Your task to perform on an android device: turn off location history Image 0: 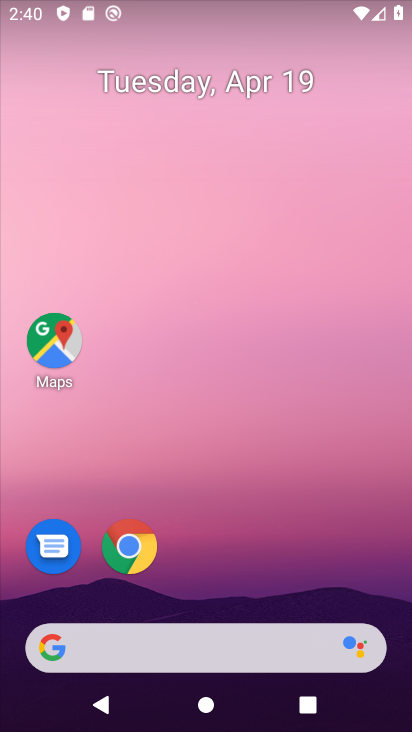
Step 0: drag from (217, 635) to (208, 18)
Your task to perform on an android device: turn off location history Image 1: 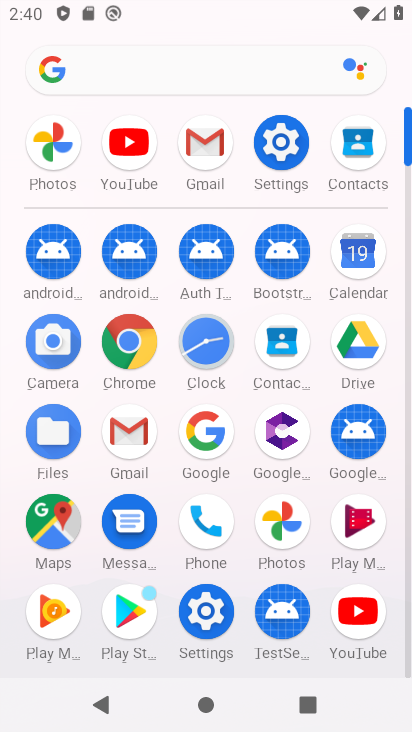
Step 1: click (208, 618)
Your task to perform on an android device: turn off location history Image 2: 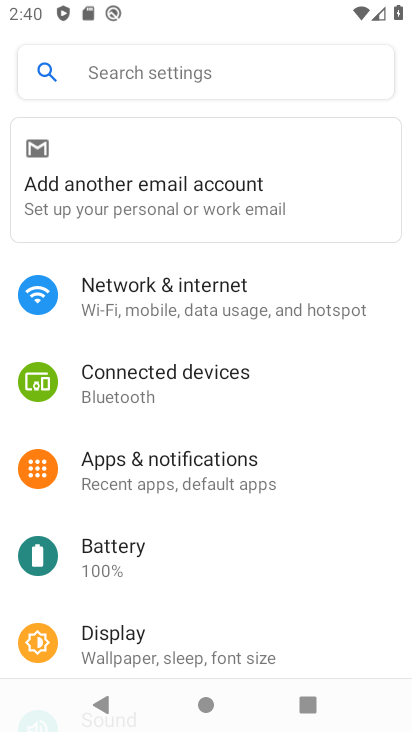
Step 2: drag from (182, 542) to (167, 2)
Your task to perform on an android device: turn off location history Image 3: 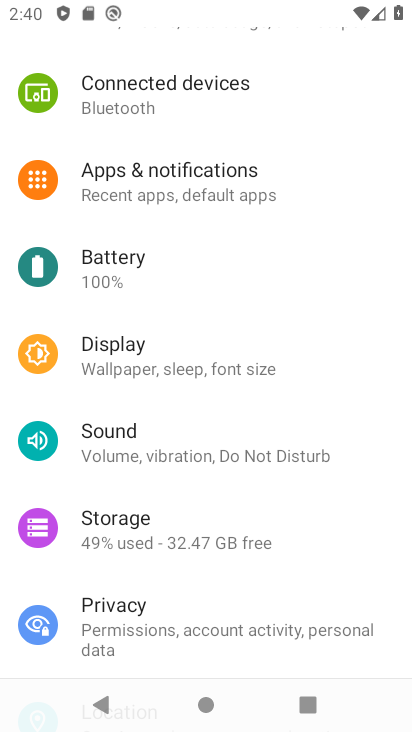
Step 3: drag from (175, 548) to (200, 139)
Your task to perform on an android device: turn off location history Image 4: 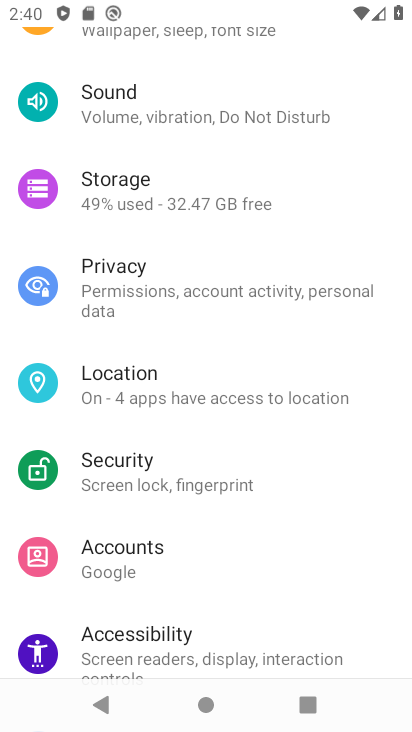
Step 4: click (148, 405)
Your task to perform on an android device: turn off location history Image 5: 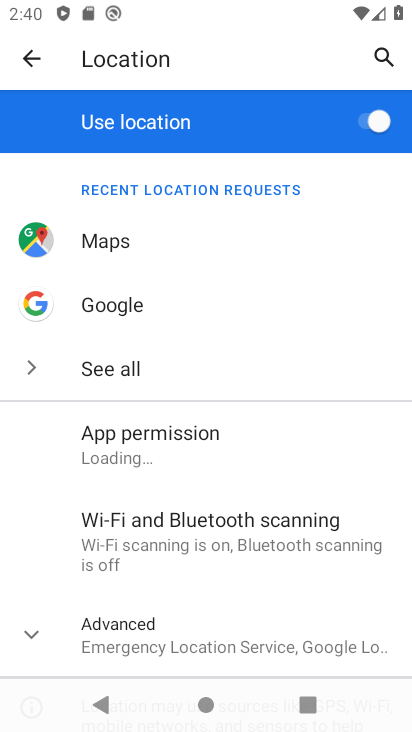
Step 5: drag from (201, 646) to (246, 128)
Your task to perform on an android device: turn off location history Image 6: 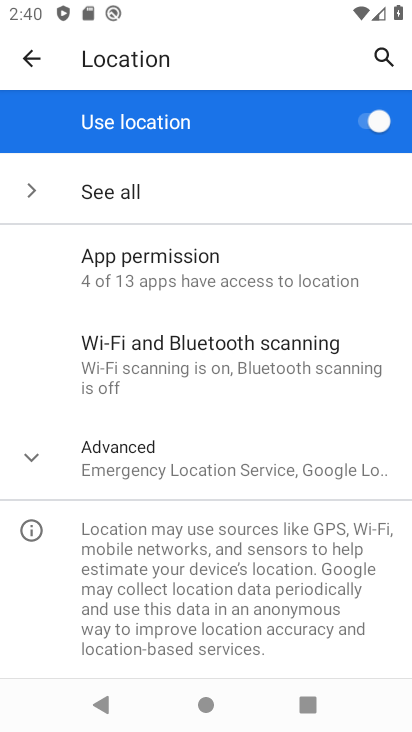
Step 6: click (165, 450)
Your task to perform on an android device: turn off location history Image 7: 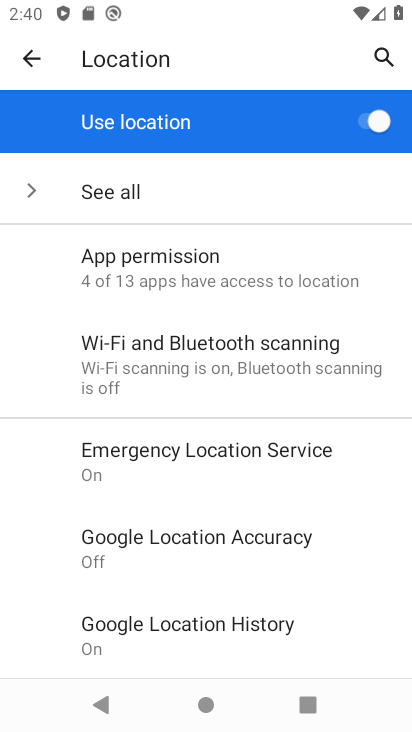
Step 7: click (202, 623)
Your task to perform on an android device: turn off location history Image 8: 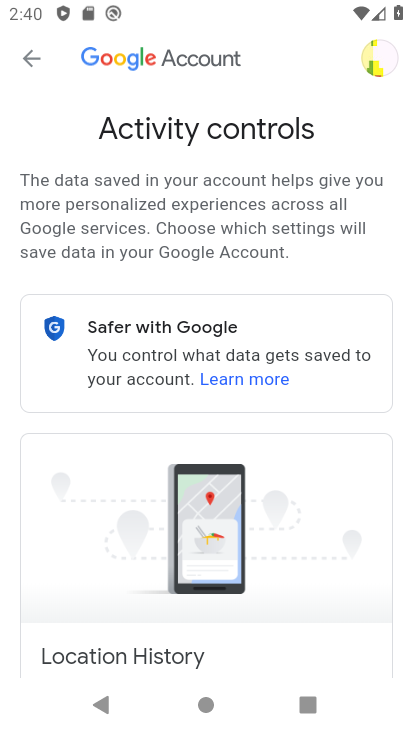
Step 8: drag from (262, 434) to (186, 32)
Your task to perform on an android device: turn off location history Image 9: 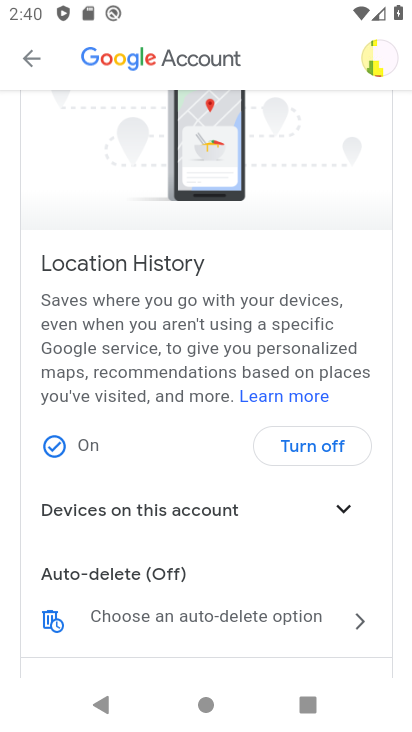
Step 9: click (290, 450)
Your task to perform on an android device: turn off location history Image 10: 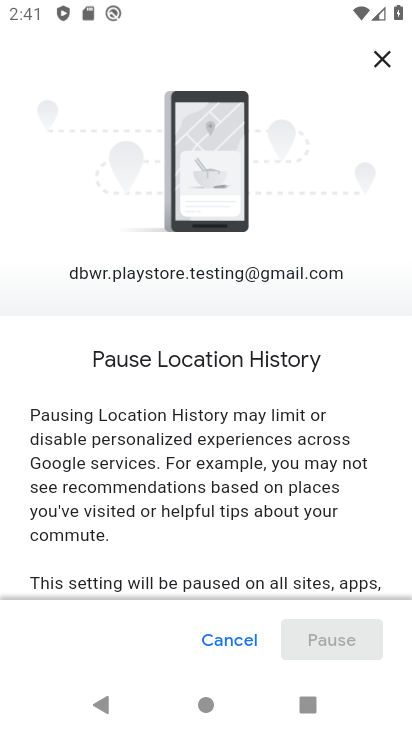
Step 10: drag from (303, 560) to (247, 12)
Your task to perform on an android device: turn off location history Image 11: 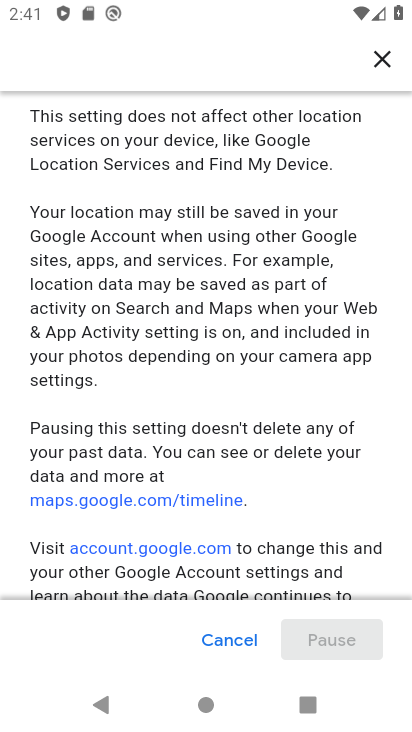
Step 11: drag from (253, 508) to (240, 11)
Your task to perform on an android device: turn off location history Image 12: 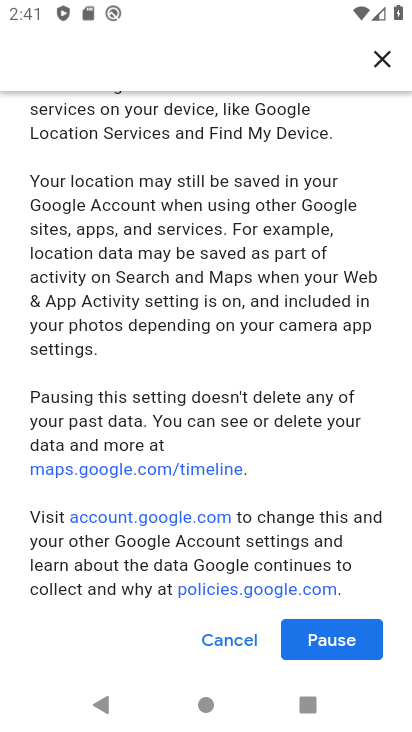
Step 12: click (323, 632)
Your task to perform on an android device: turn off location history Image 13: 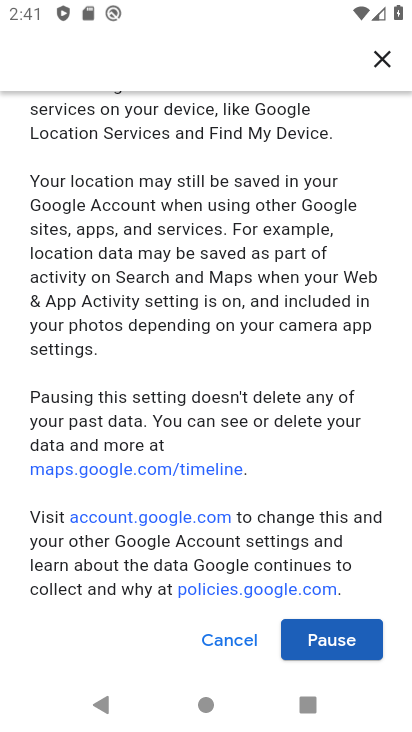
Step 13: click (342, 637)
Your task to perform on an android device: turn off location history Image 14: 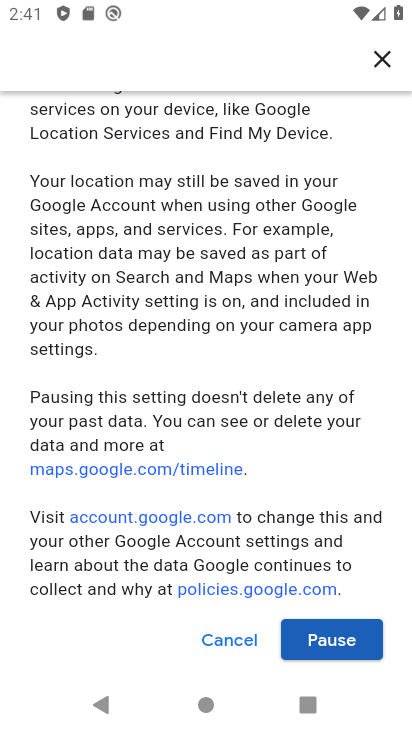
Step 14: click (308, 647)
Your task to perform on an android device: turn off location history Image 15: 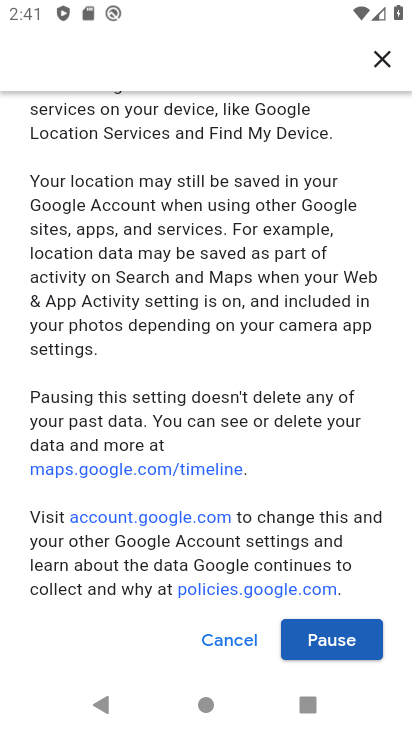
Step 15: task complete